Your task to perform on an android device: turn on airplane mode Image 0: 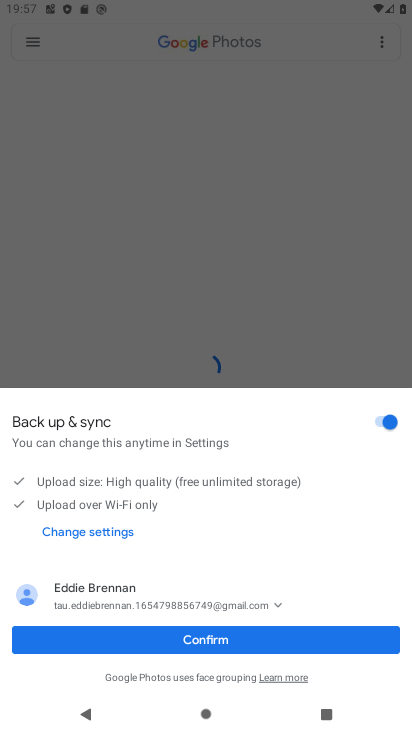
Step 0: press home button
Your task to perform on an android device: turn on airplane mode Image 1: 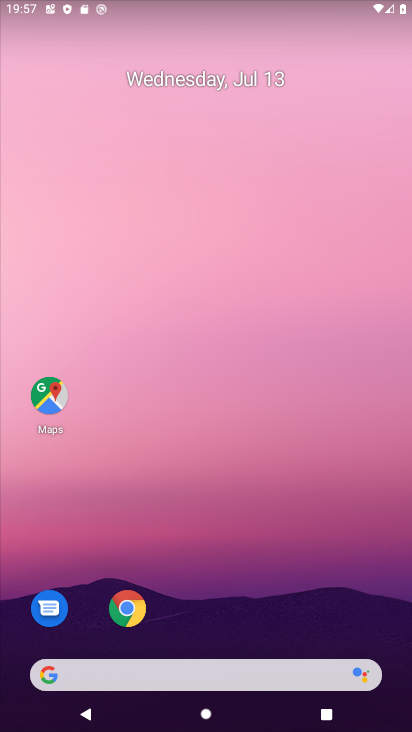
Step 1: drag from (185, 666) to (179, 121)
Your task to perform on an android device: turn on airplane mode Image 2: 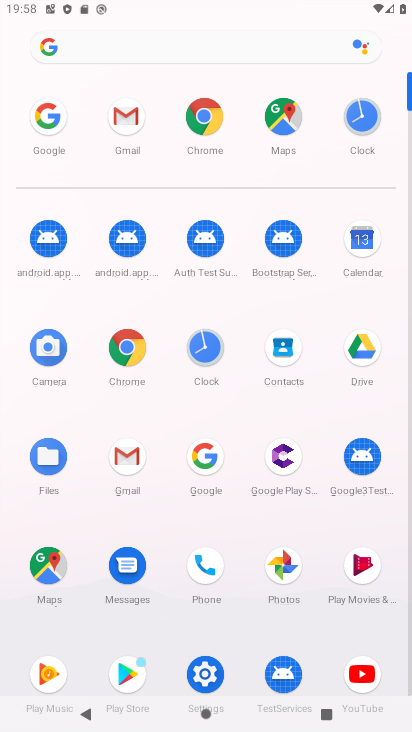
Step 2: click (197, 672)
Your task to perform on an android device: turn on airplane mode Image 3: 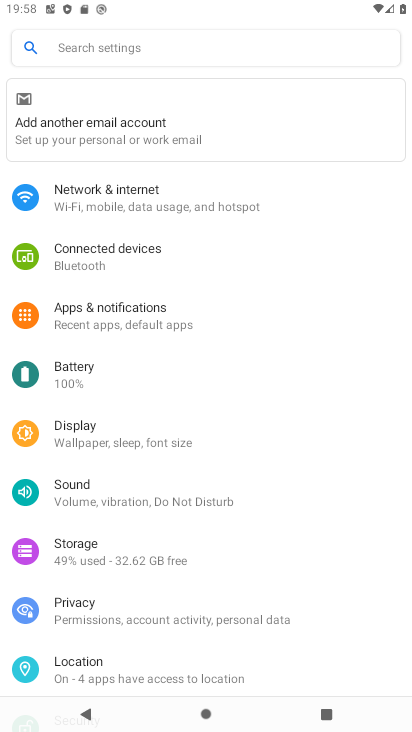
Step 3: click (95, 216)
Your task to perform on an android device: turn on airplane mode Image 4: 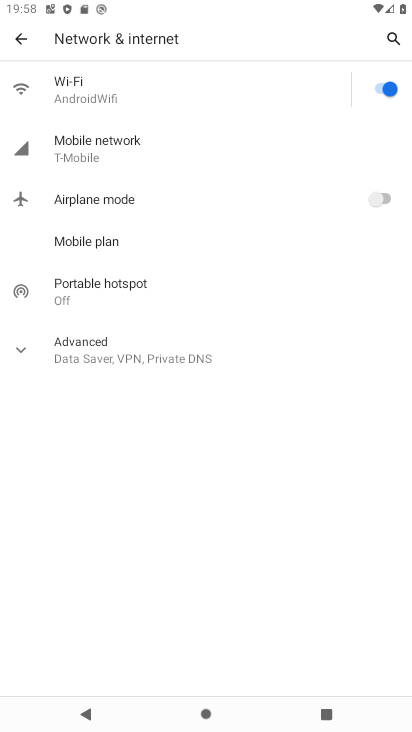
Step 4: click (369, 197)
Your task to perform on an android device: turn on airplane mode Image 5: 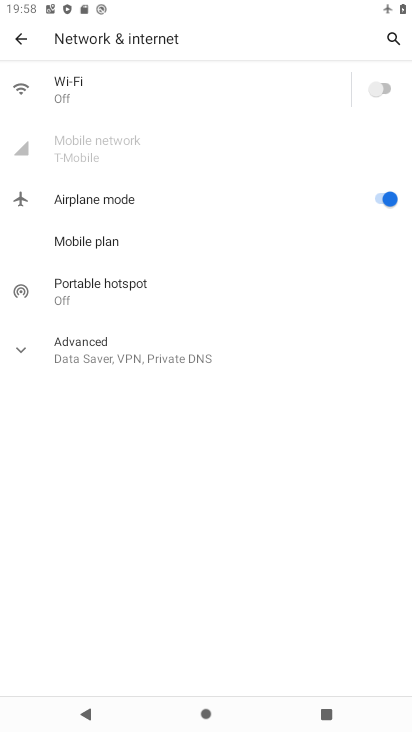
Step 5: task complete